Your task to perform on an android device: clear history in the chrome app Image 0: 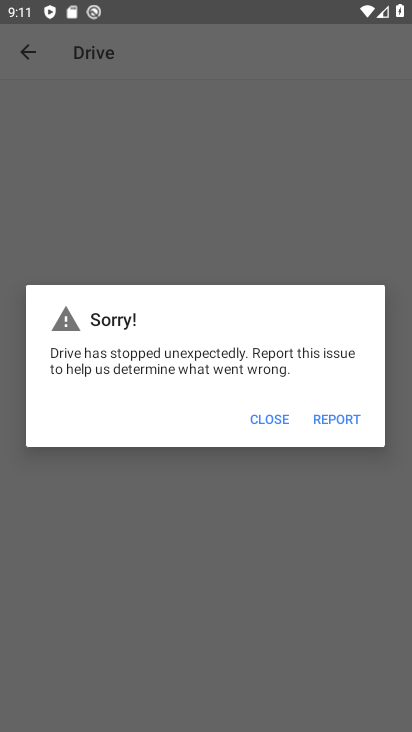
Step 0: click (282, 423)
Your task to perform on an android device: clear history in the chrome app Image 1: 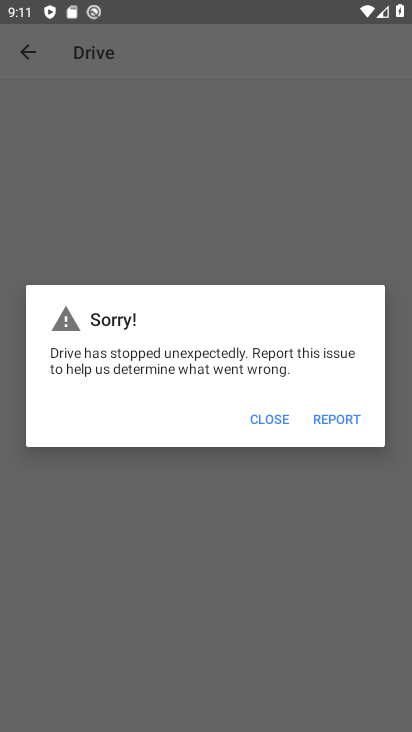
Step 1: click (267, 414)
Your task to perform on an android device: clear history in the chrome app Image 2: 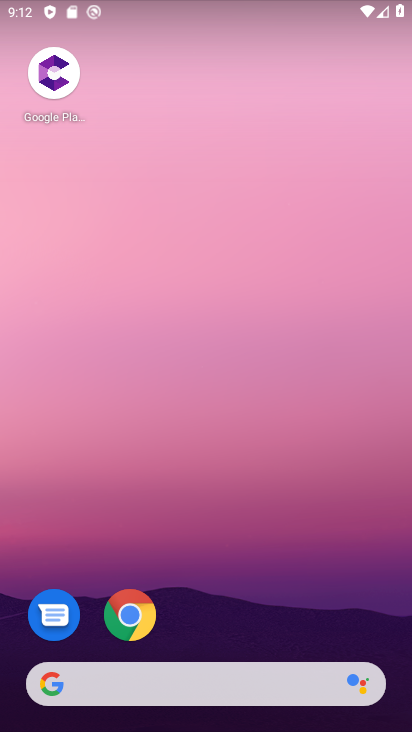
Step 2: click (125, 610)
Your task to perform on an android device: clear history in the chrome app Image 3: 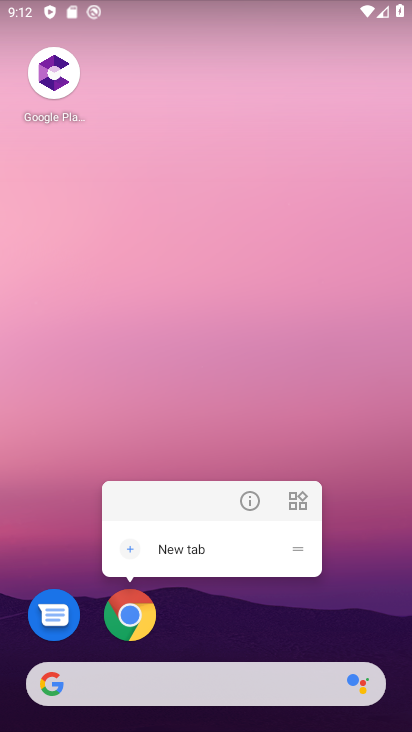
Step 3: click (125, 610)
Your task to perform on an android device: clear history in the chrome app Image 4: 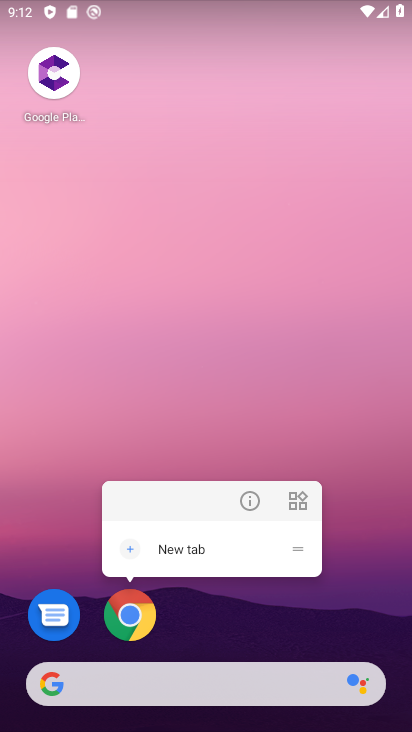
Step 4: click (133, 620)
Your task to perform on an android device: clear history in the chrome app Image 5: 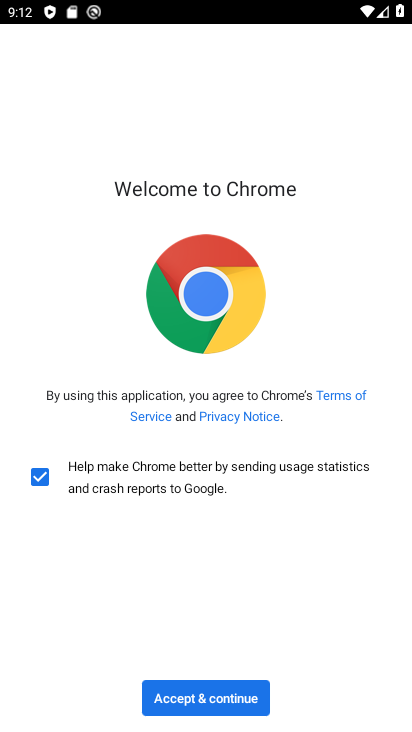
Step 5: click (220, 688)
Your task to perform on an android device: clear history in the chrome app Image 6: 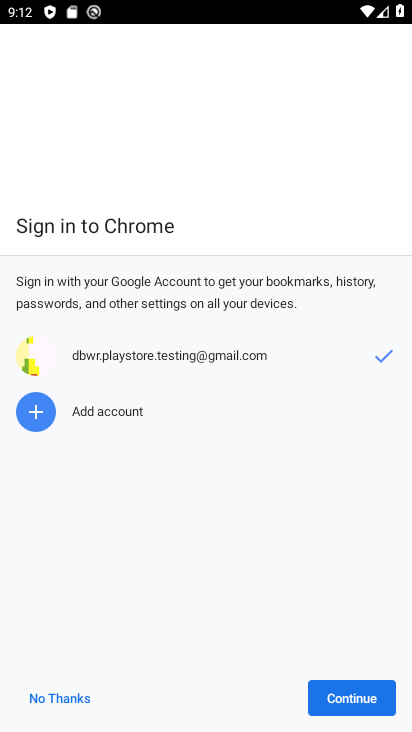
Step 6: click (347, 693)
Your task to perform on an android device: clear history in the chrome app Image 7: 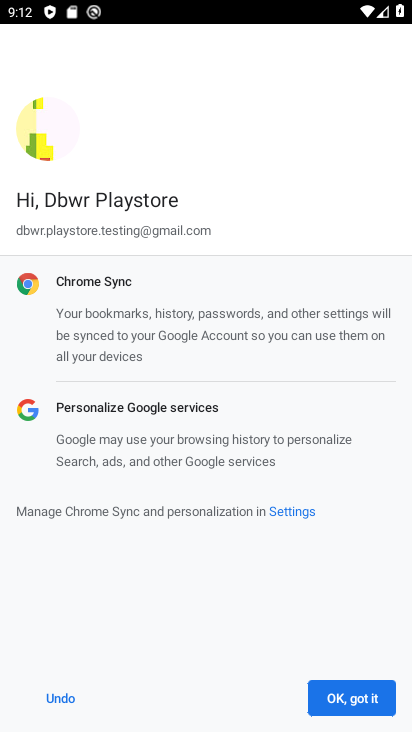
Step 7: click (347, 693)
Your task to perform on an android device: clear history in the chrome app Image 8: 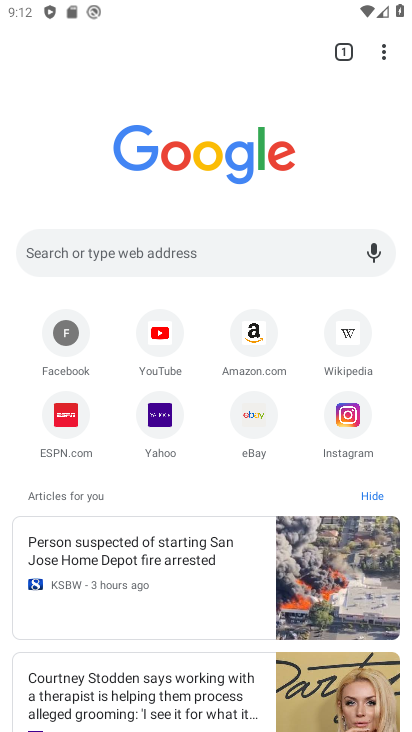
Step 8: click (383, 45)
Your task to perform on an android device: clear history in the chrome app Image 9: 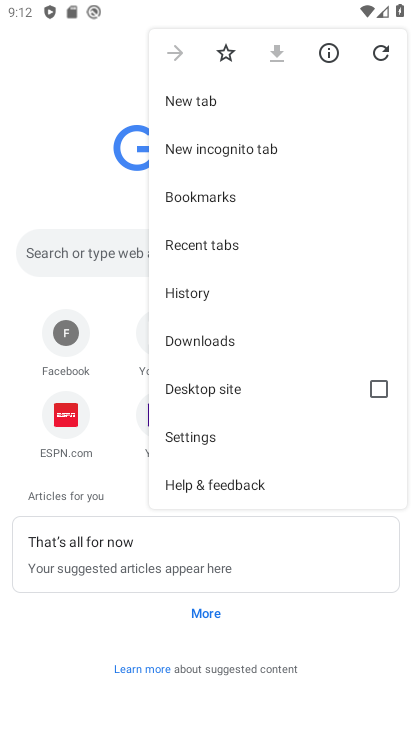
Step 9: click (187, 291)
Your task to perform on an android device: clear history in the chrome app Image 10: 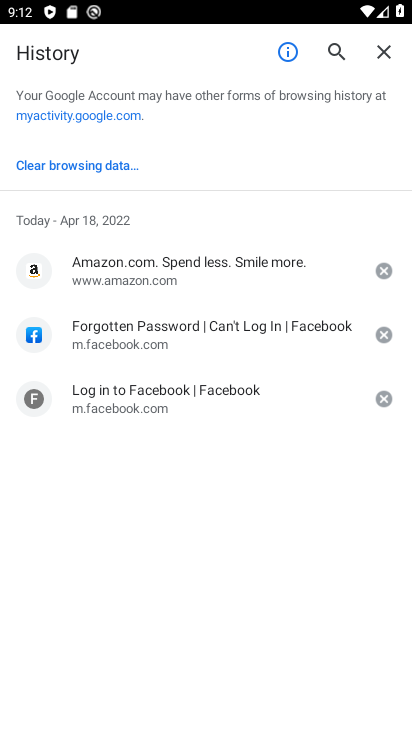
Step 10: click (112, 168)
Your task to perform on an android device: clear history in the chrome app Image 11: 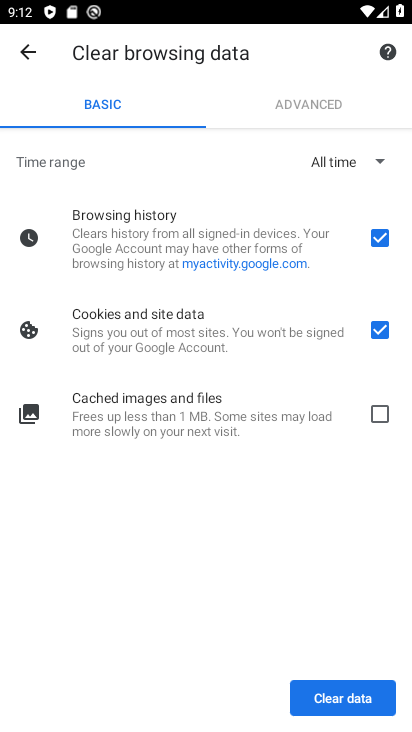
Step 11: click (387, 405)
Your task to perform on an android device: clear history in the chrome app Image 12: 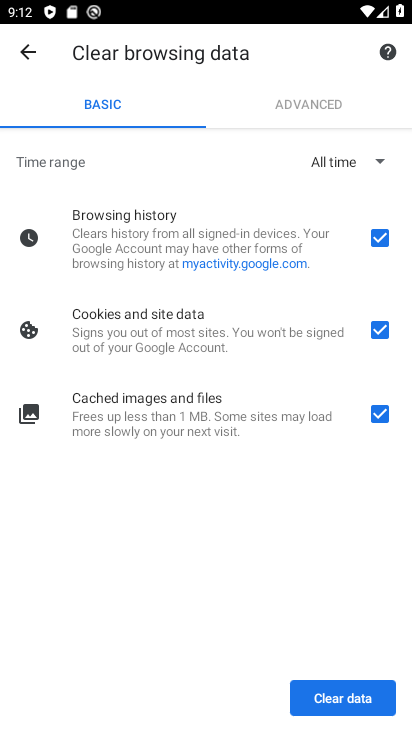
Step 12: click (338, 692)
Your task to perform on an android device: clear history in the chrome app Image 13: 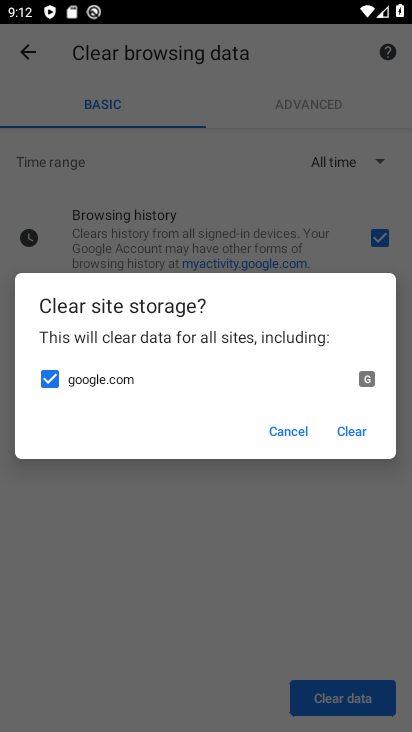
Step 13: click (349, 433)
Your task to perform on an android device: clear history in the chrome app Image 14: 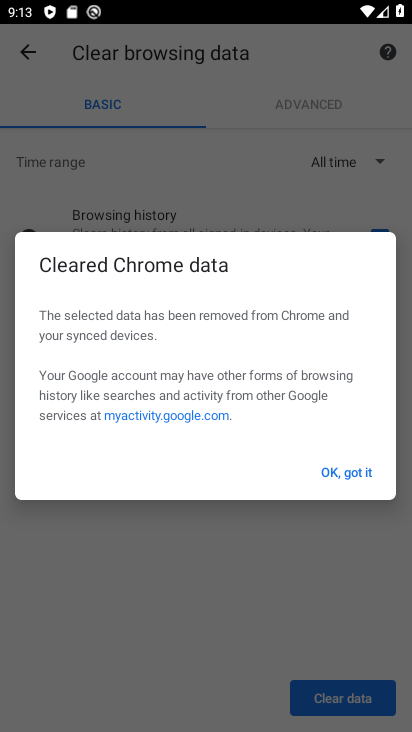
Step 14: click (365, 473)
Your task to perform on an android device: clear history in the chrome app Image 15: 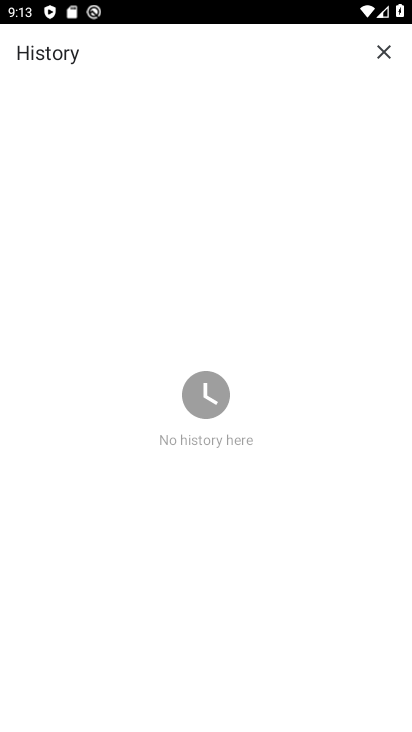
Step 15: task complete